Your task to perform on an android device: Clear the shopping cart on newegg. Image 0: 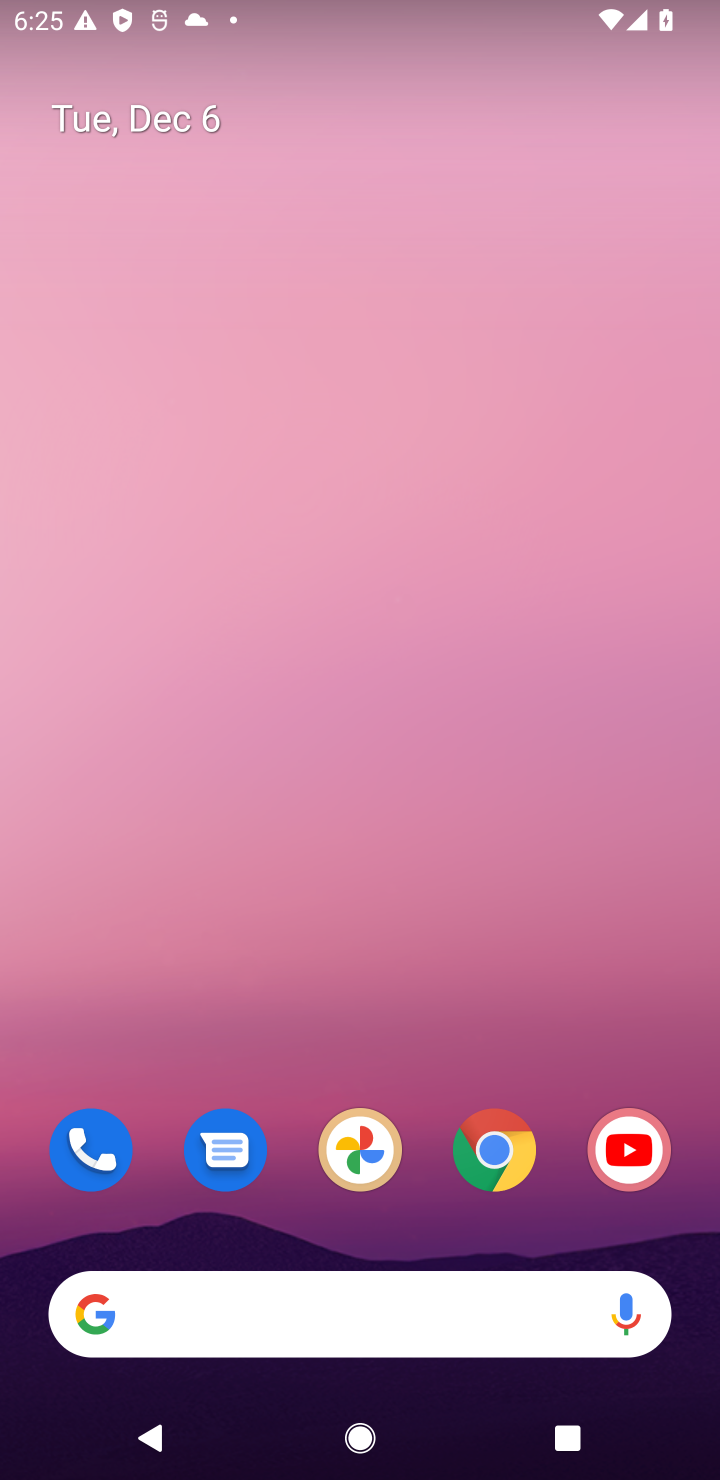
Step 0: click (501, 1161)
Your task to perform on an android device: Clear the shopping cart on newegg. Image 1: 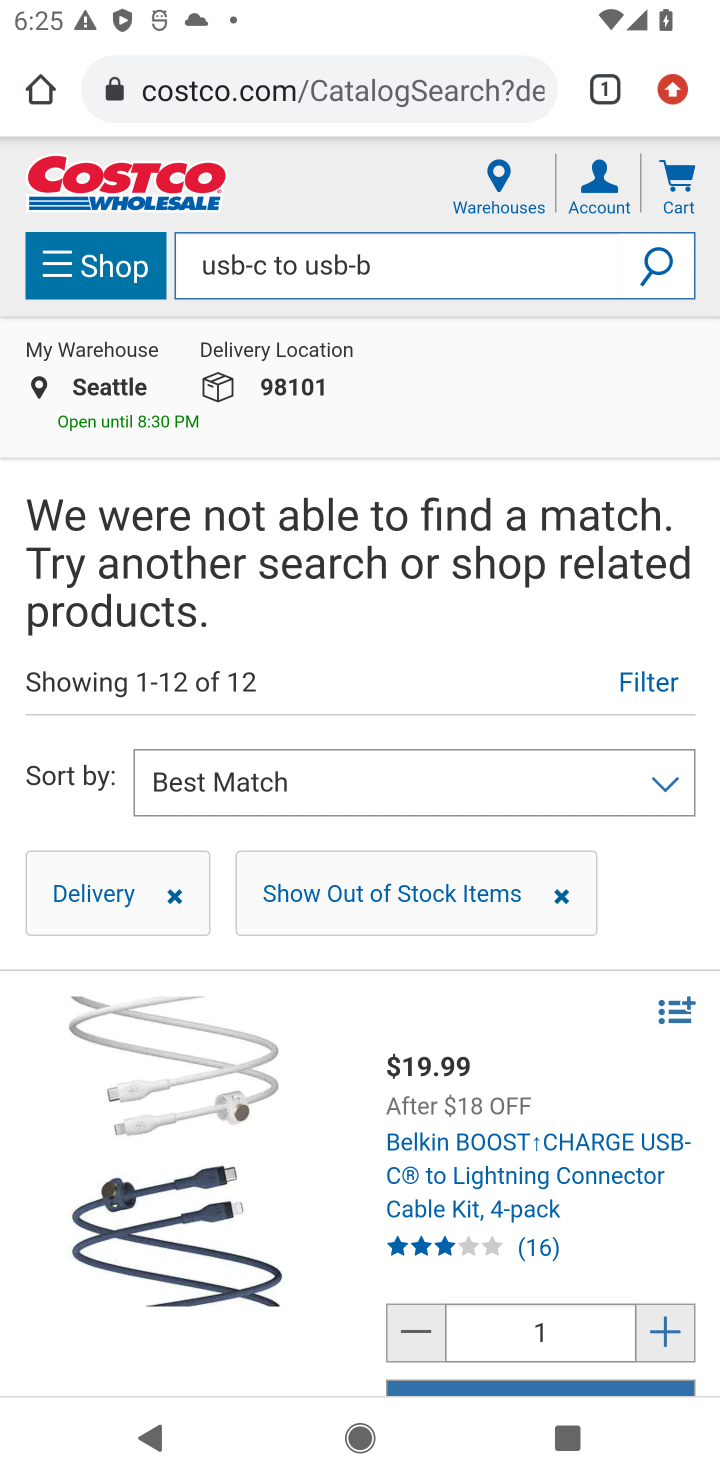
Step 1: click (305, 95)
Your task to perform on an android device: Clear the shopping cart on newegg. Image 2: 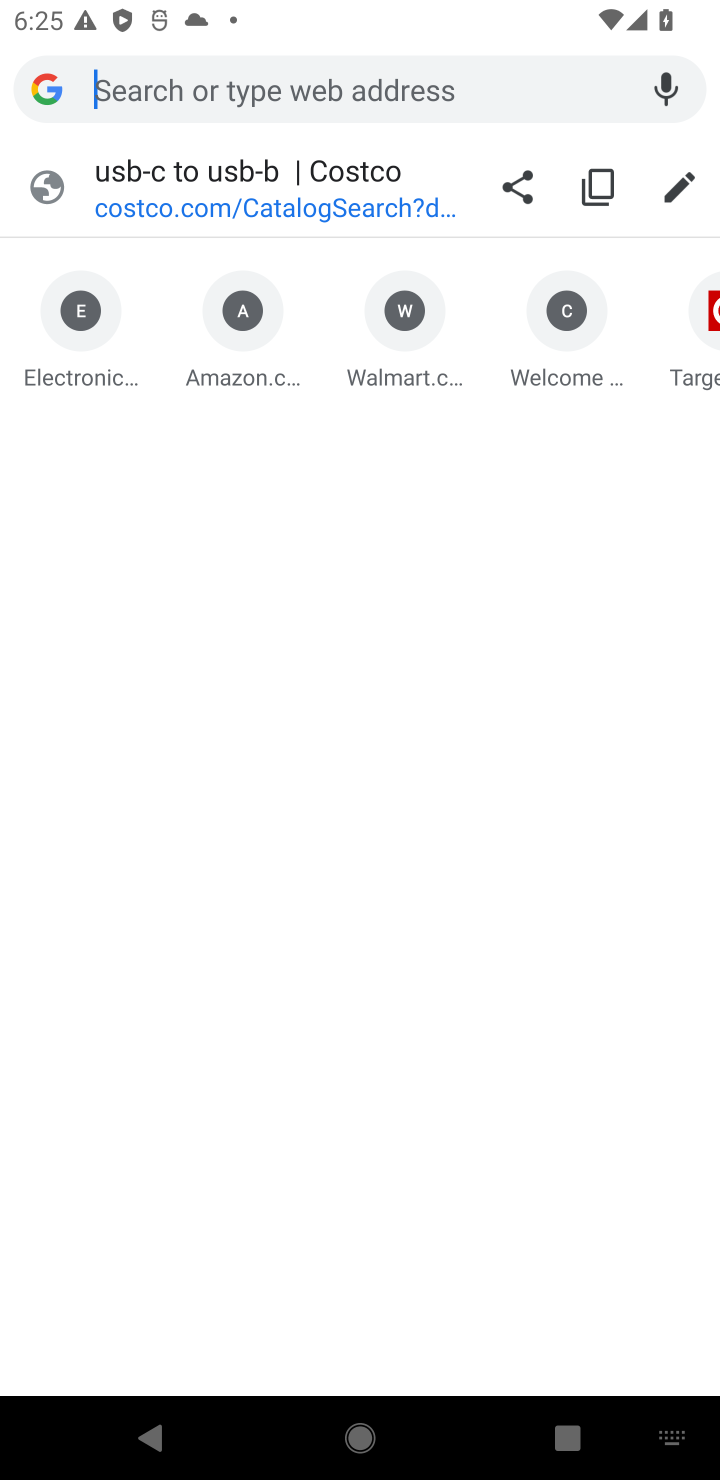
Step 2: type "newegg.com"
Your task to perform on an android device: Clear the shopping cart on newegg. Image 3: 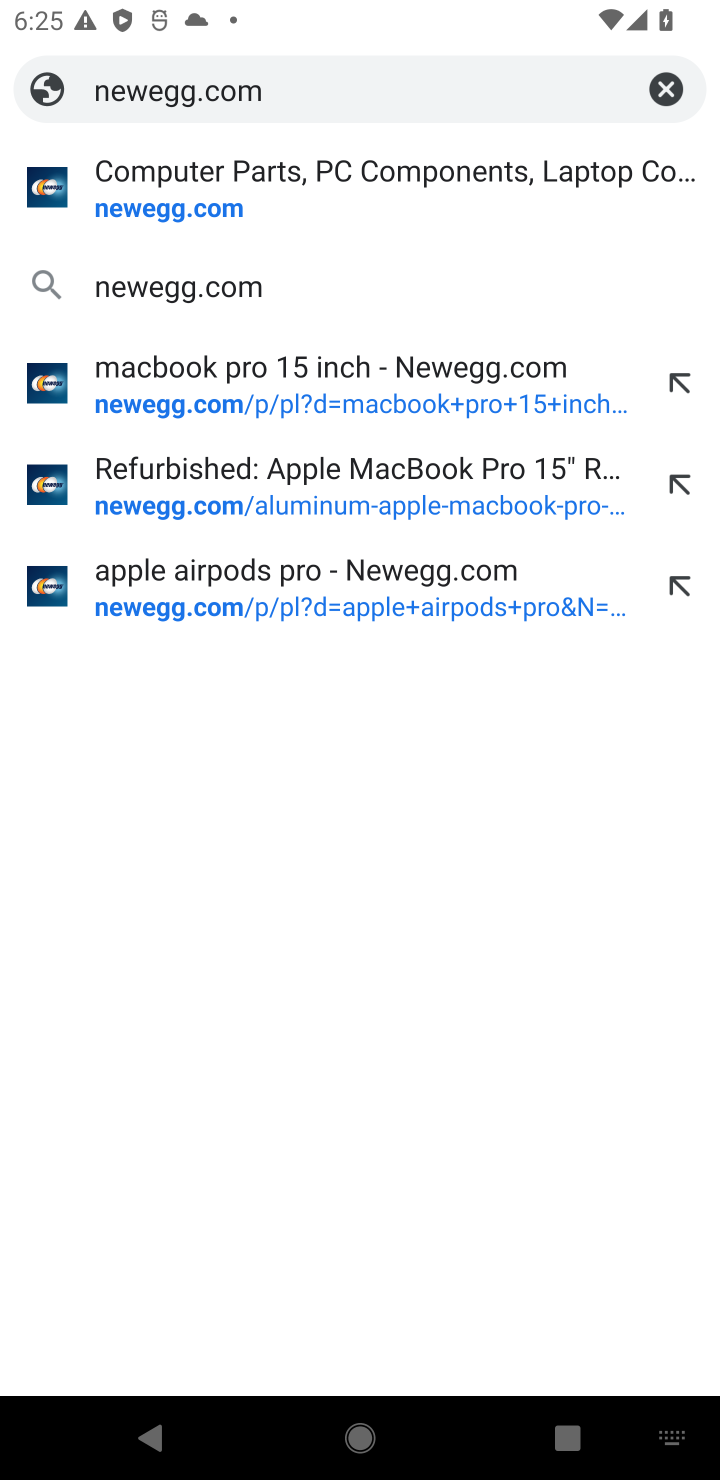
Step 3: click (169, 219)
Your task to perform on an android device: Clear the shopping cart on newegg. Image 4: 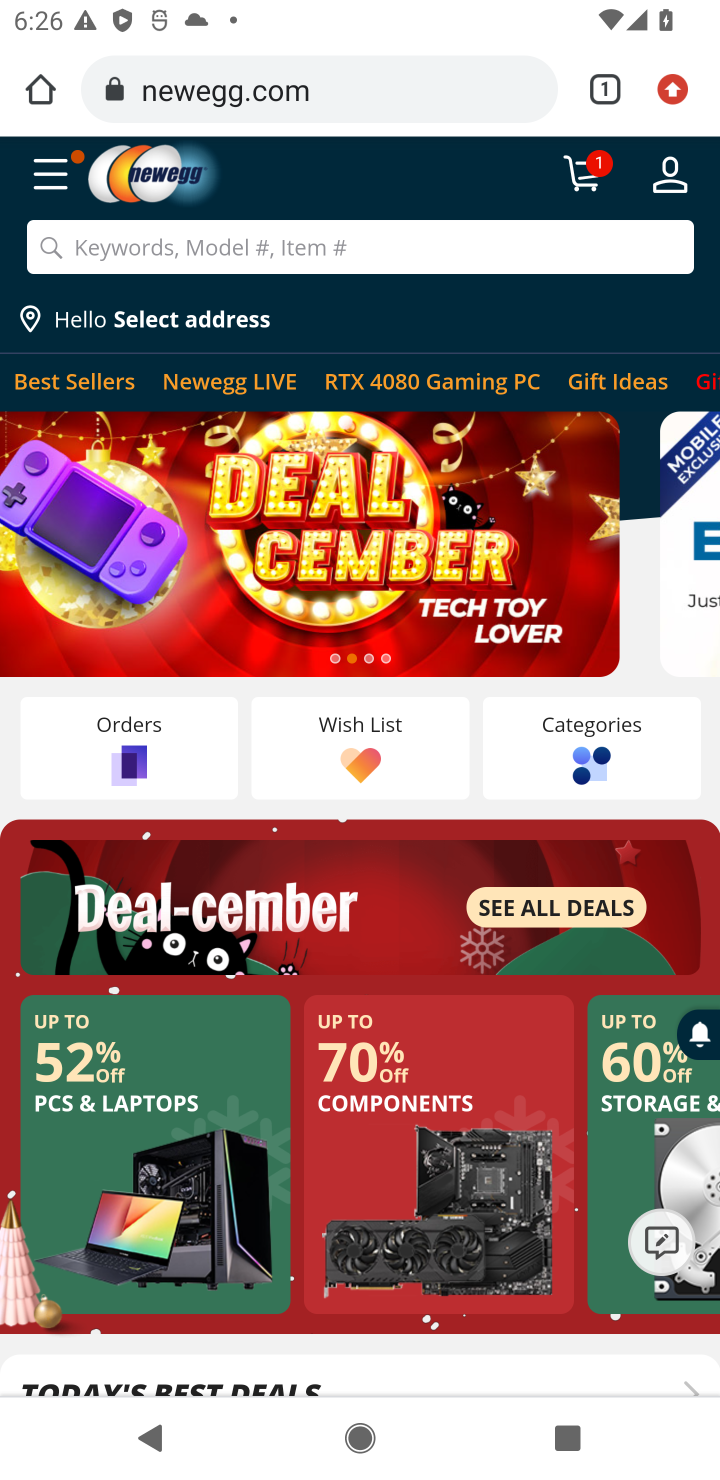
Step 4: click (598, 187)
Your task to perform on an android device: Clear the shopping cart on newegg. Image 5: 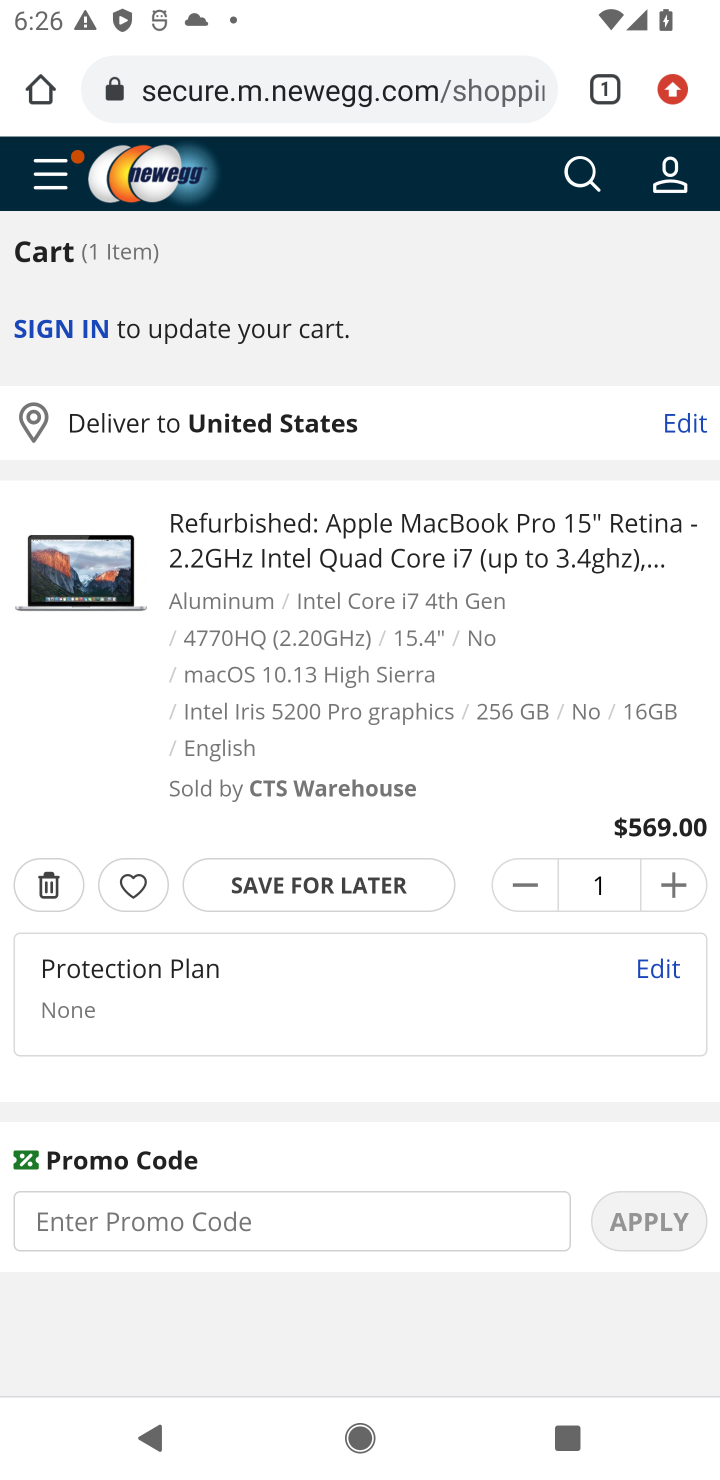
Step 5: click (58, 892)
Your task to perform on an android device: Clear the shopping cart on newegg. Image 6: 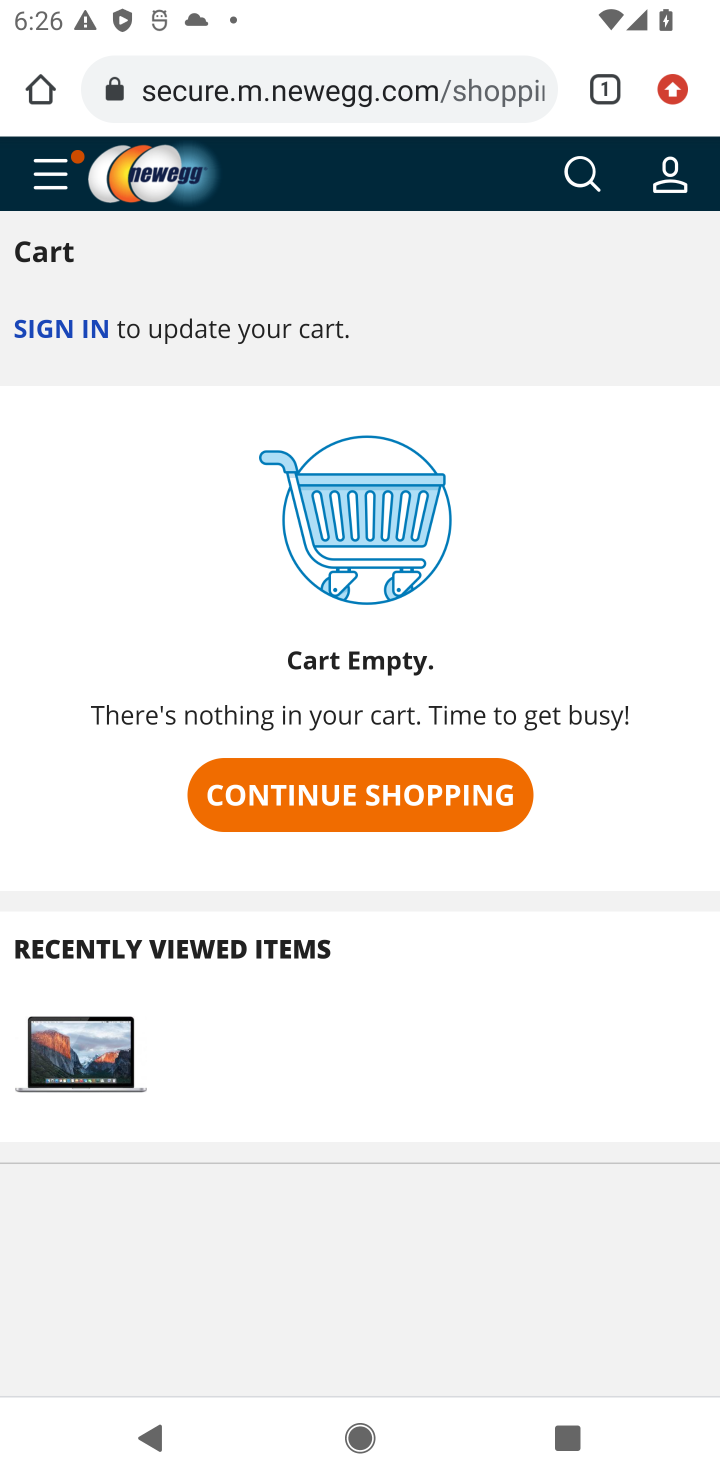
Step 6: task complete